Your task to perform on an android device: change the clock display to analog Image 0: 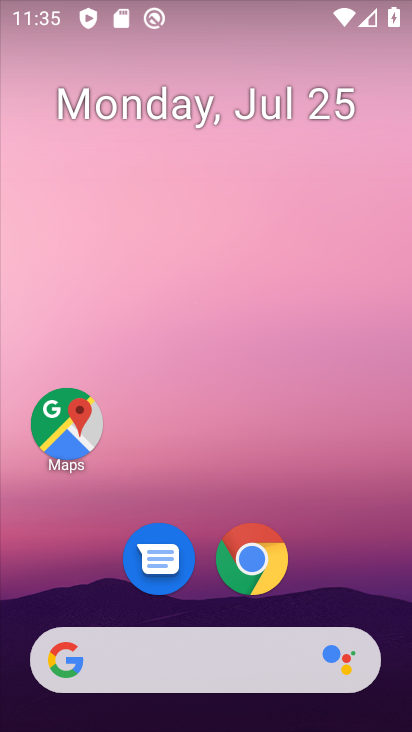
Step 0: drag from (205, 604) to (316, 2)
Your task to perform on an android device: change the clock display to analog Image 1: 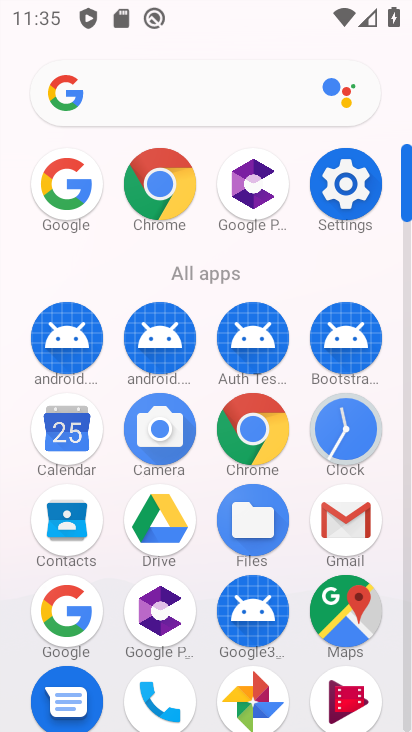
Step 1: click (349, 422)
Your task to perform on an android device: change the clock display to analog Image 2: 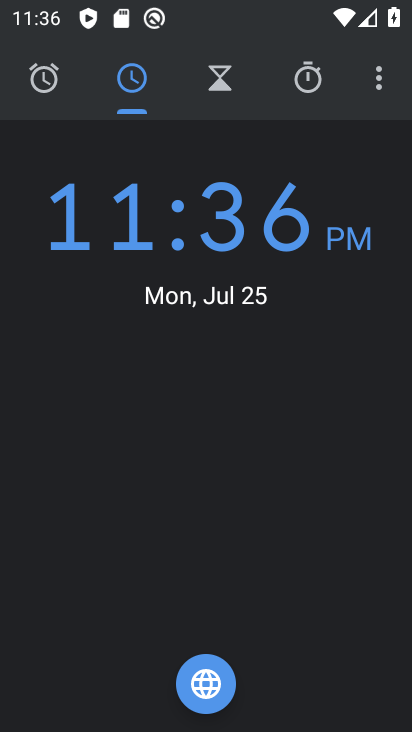
Step 2: click (377, 76)
Your task to perform on an android device: change the clock display to analog Image 3: 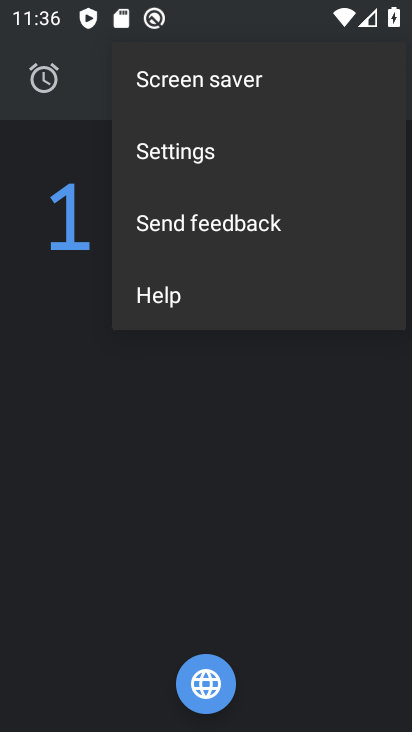
Step 3: click (248, 141)
Your task to perform on an android device: change the clock display to analog Image 4: 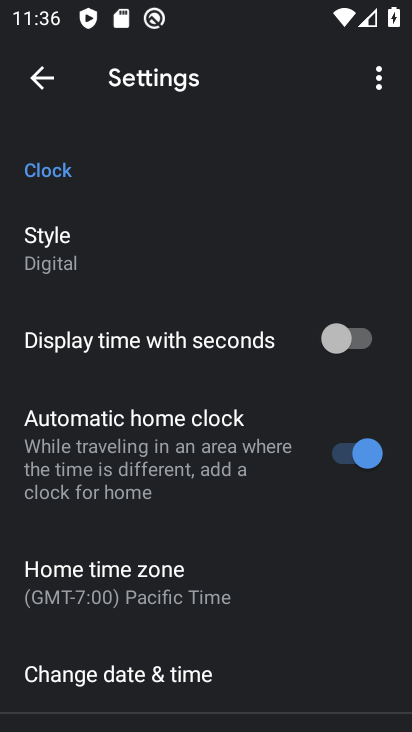
Step 4: click (94, 257)
Your task to perform on an android device: change the clock display to analog Image 5: 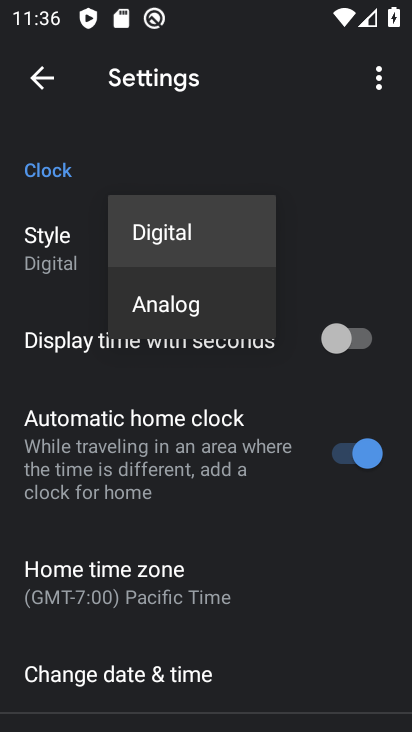
Step 5: click (178, 306)
Your task to perform on an android device: change the clock display to analog Image 6: 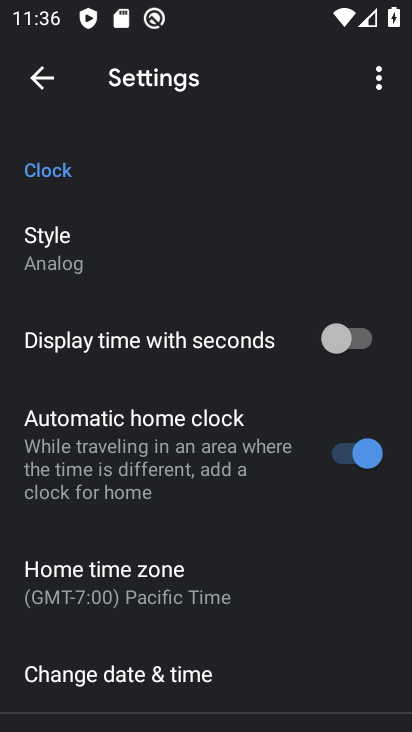
Step 6: task complete